Your task to perform on an android device: read, delete, or share a saved page in the chrome app Image 0: 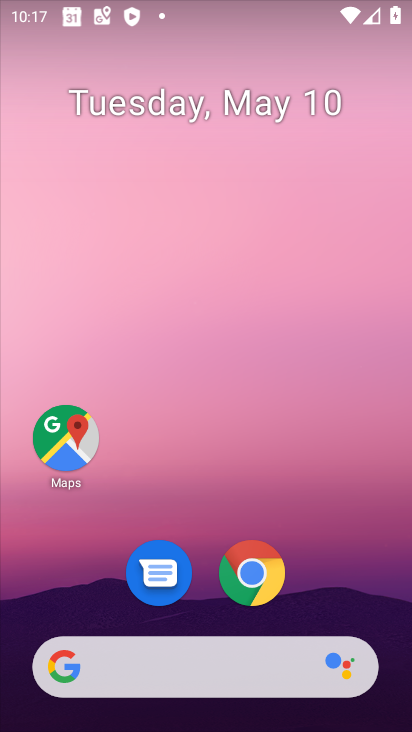
Step 0: click (256, 583)
Your task to perform on an android device: read, delete, or share a saved page in the chrome app Image 1: 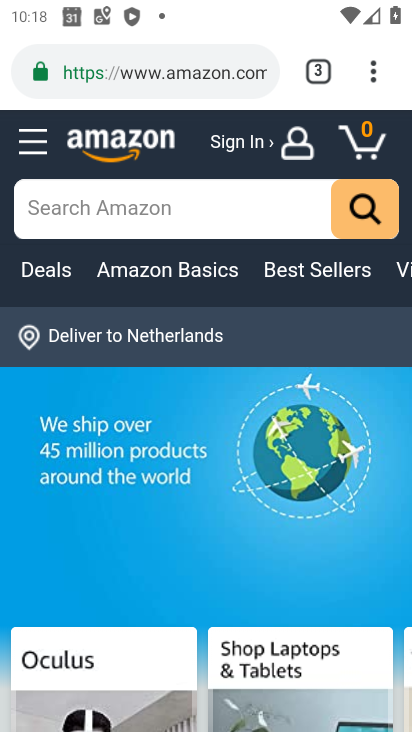
Step 1: click (368, 81)
Your task to perform on an android device: read, delete, or share a saved page in the chrome app Image 2: 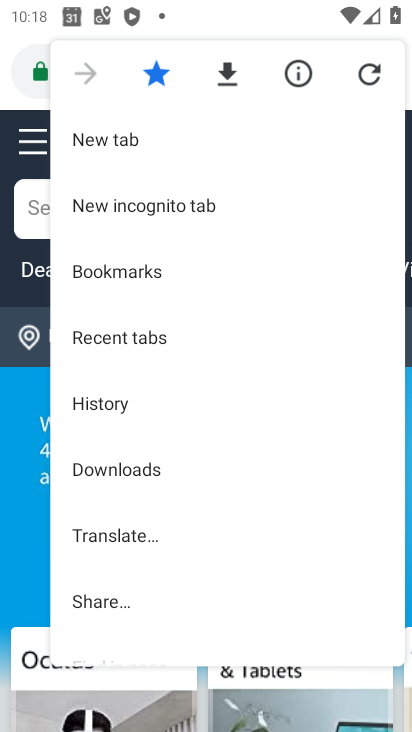
Step 2: click (124, 467)
Your task to perform on an android device: read, delete, or share a saved page in the chrome app Image 3: 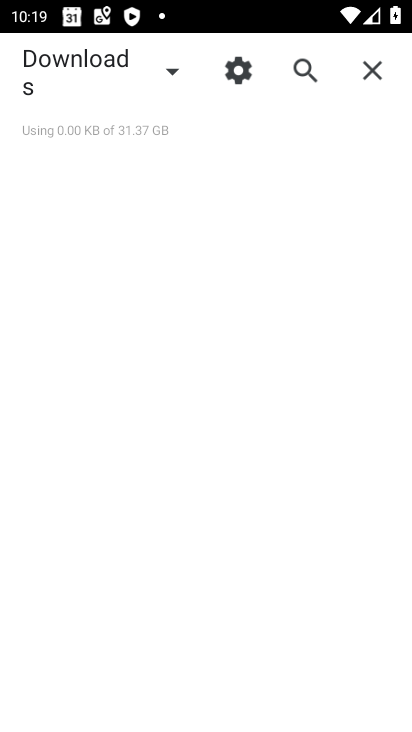
Step 3: task complete